Your task to perform on an android device: set the timer Image 0: 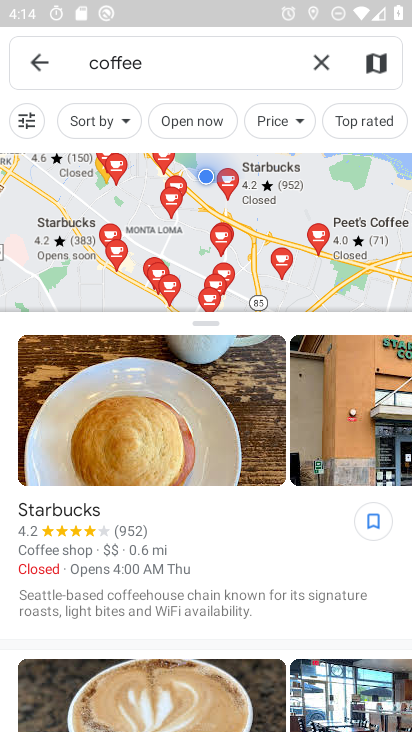
Step 0: press home button
Your task to perform on an android device: set the timer Image 1: 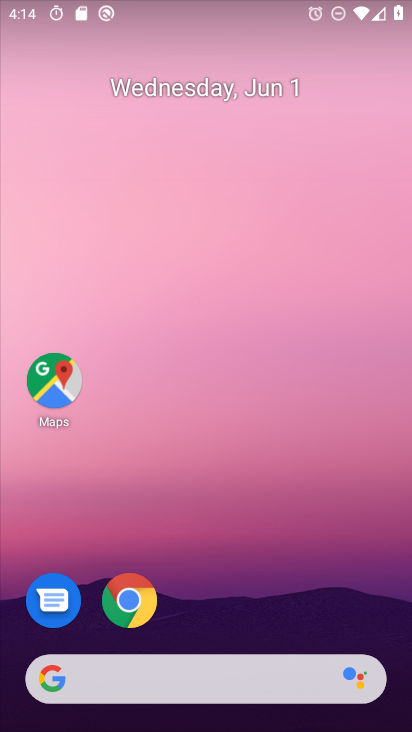
Step 1: drag from (238, 627) to (314, 11)
Your task to perform on an android device: set the timer Image 2: 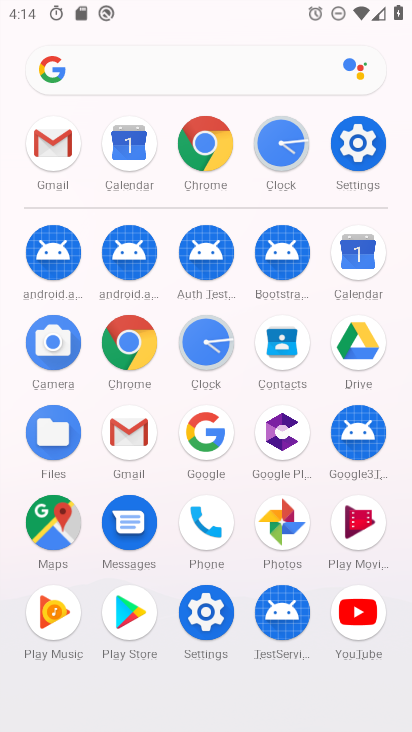
Step 2: click (195, 354)
Your task to perform on an android device: set the timer Image 3: 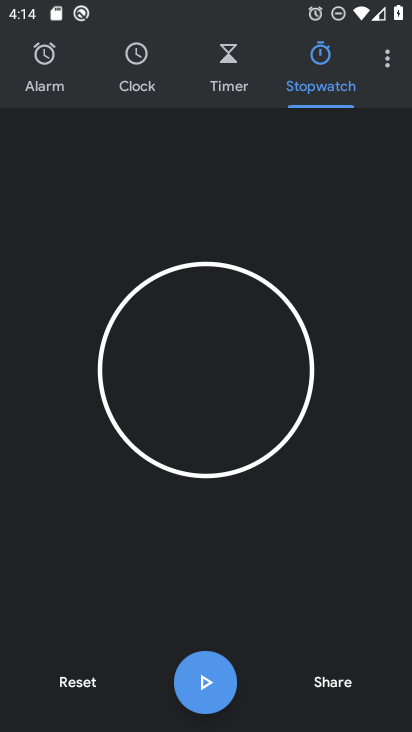
Step 3: click (226, 79)
Your task to perform on an android device: set the timer Image 4: 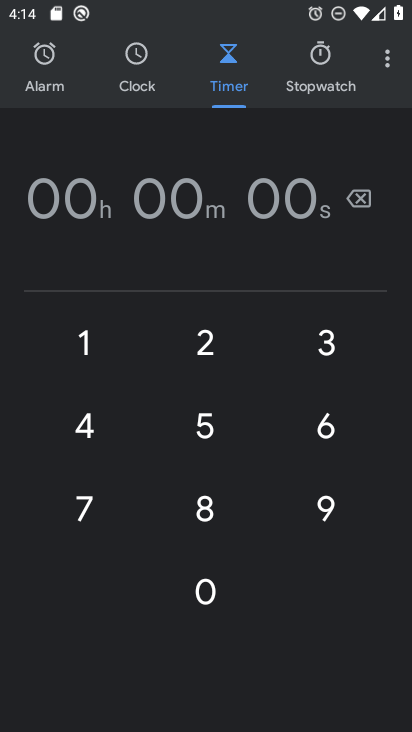
Step 4: click (208, 352)
Your task to perform on an android device: set the timer Image 5: 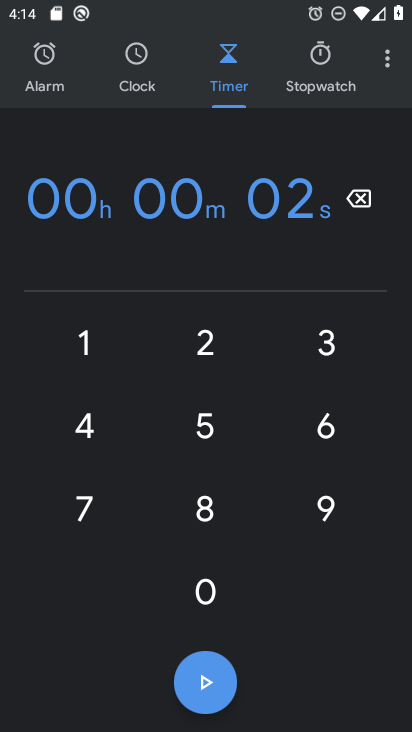
Step 5: click (212, 593)
Your task to perform on an android device: set the timer Image 6: 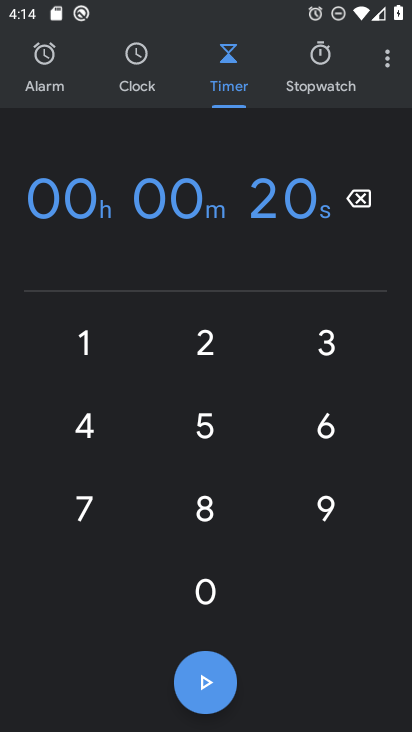
Step 6: click (207, 362)
Your task to perform on an android device: set the timer Image 7: 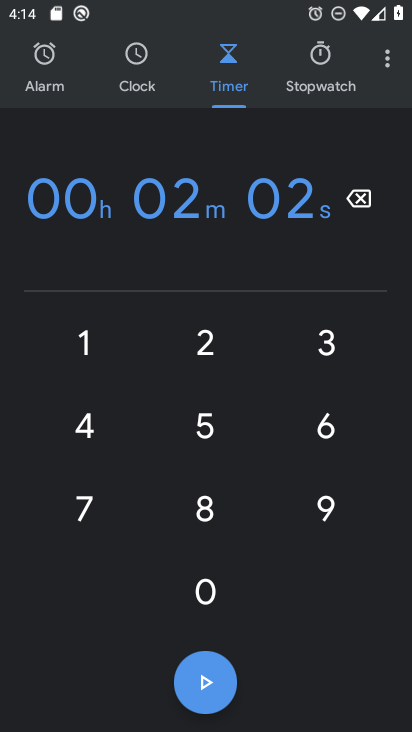
Step 7: click (205, 590)
Your task to perform on an android device: set the timer Image 8: 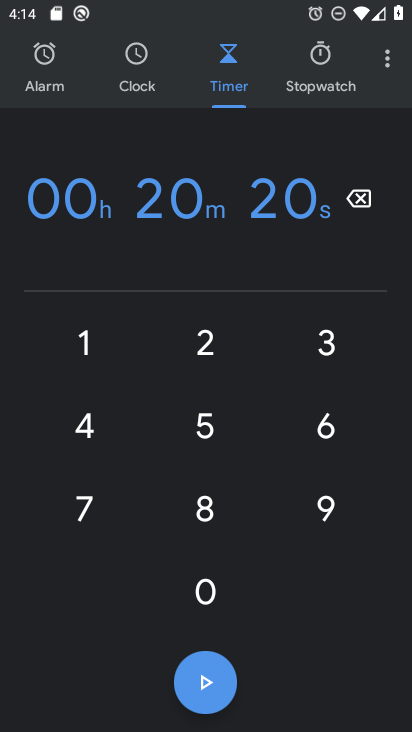
Step 8: click (217, 679)
Your task to perform on an android device: set the timer Image 9: 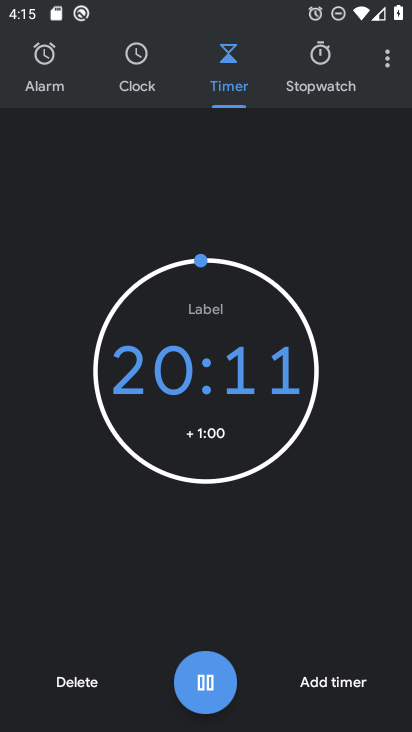
Step 9: task complete